Your task to perform on an android device: Open Google Maps Image 0: 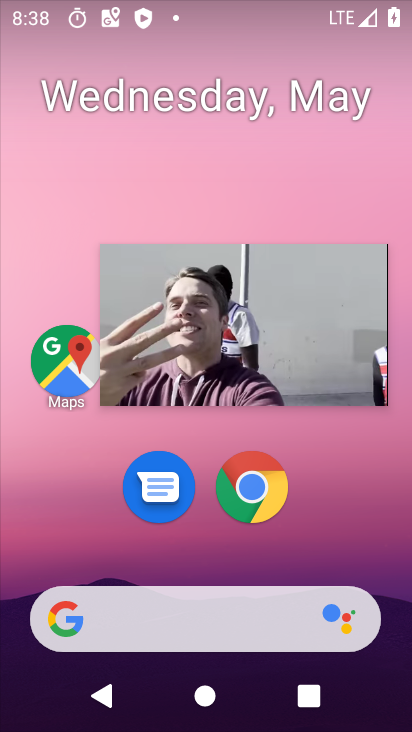
Step 0: click (340, 288)
Your task to perform on an android device: Open Google Maps Image 1: 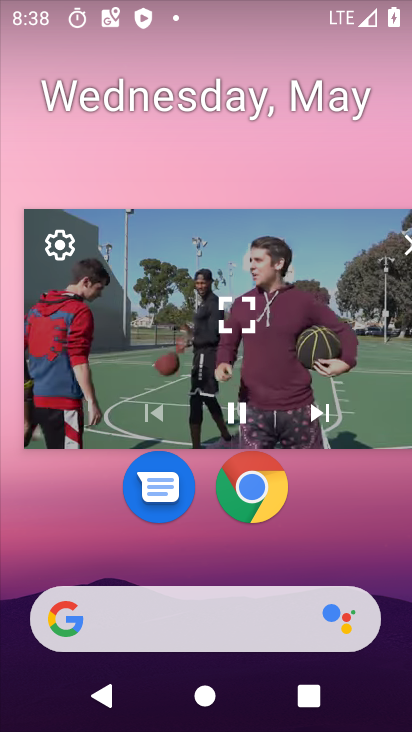
Step 1: click (406, 244)
Your task to perform on an android device: Open Google Maps Image 2: 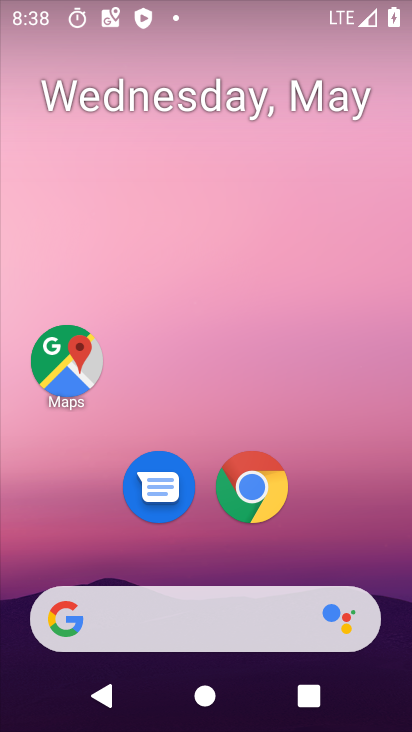
Step 2: click (86, 368)
Your task to perform on an android device: Open Google Maps Image 3: 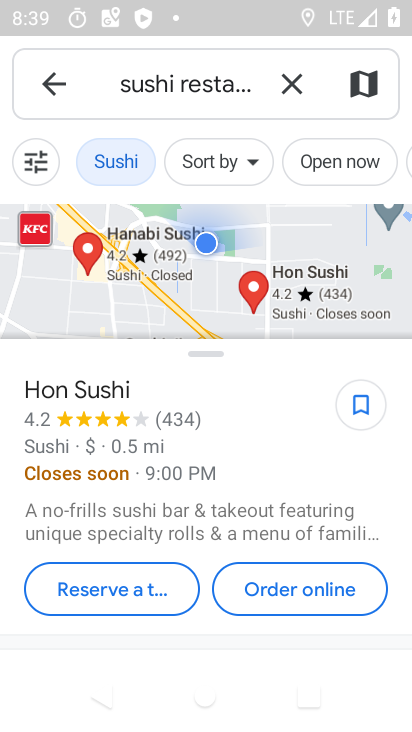
Step 3: task complete